Your task to perform on an android device: What's the weather? Image 0: 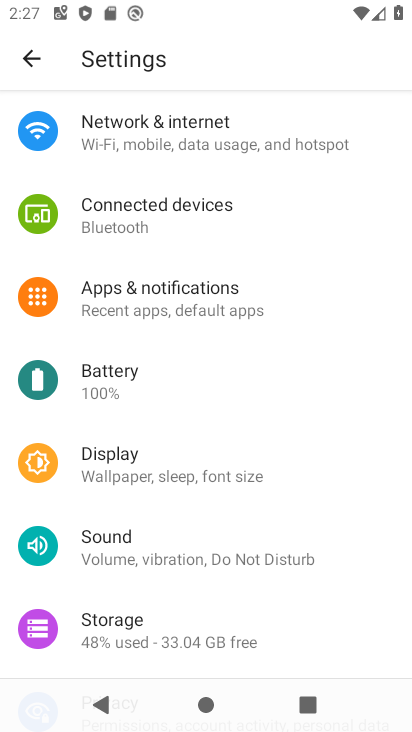
Step 0: press back button
Your task to perform on an android device: What's the weather? Image 1: 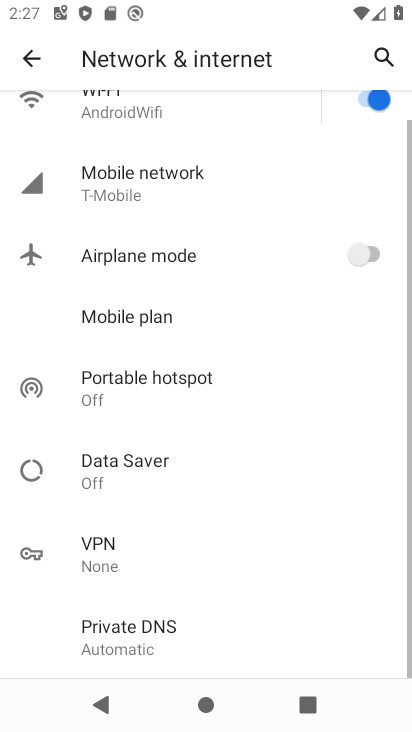
Step 1: press back button
Your task to perform on an android device: What's the weather? Image 2: 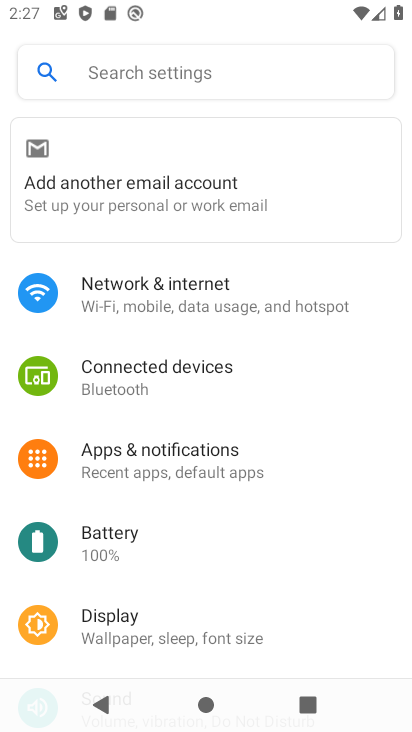
Step 2: press back button
Your task to perform on an android device: What's the weather? Image 3: 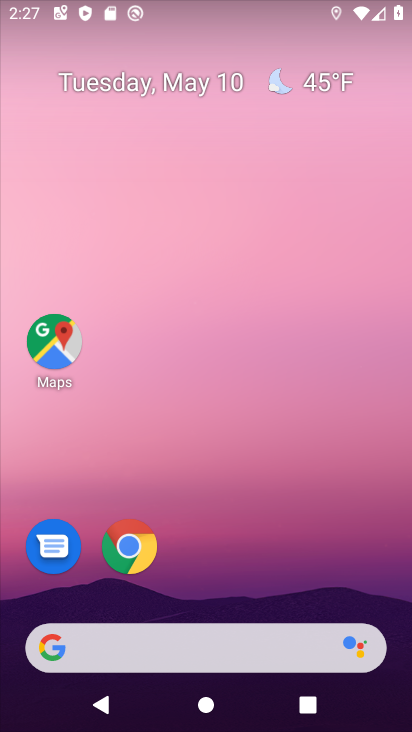
Step 3: drag from (329, 570) to (161, 13)
Your task to perform on an android device: What's the weather? Image 4: 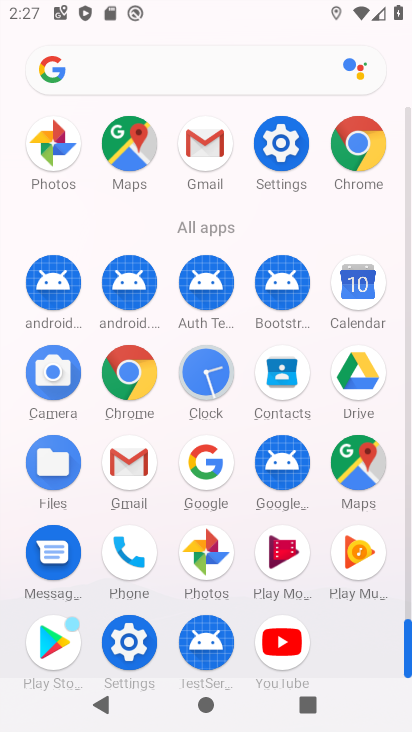
Step 4: drag from (13, 576) to (10, 225)
Your task to perform on an android device: What's the weather? Image 5: 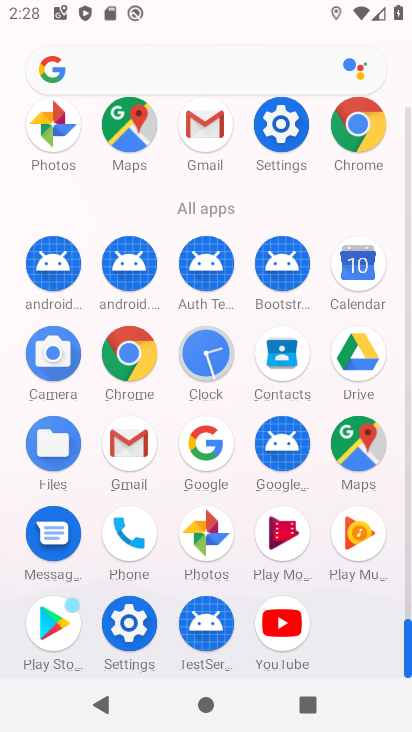
Step 5: drag from (15, 567) to (16, 214)
Your task to perform on an android device: What's the weather? Image 6: 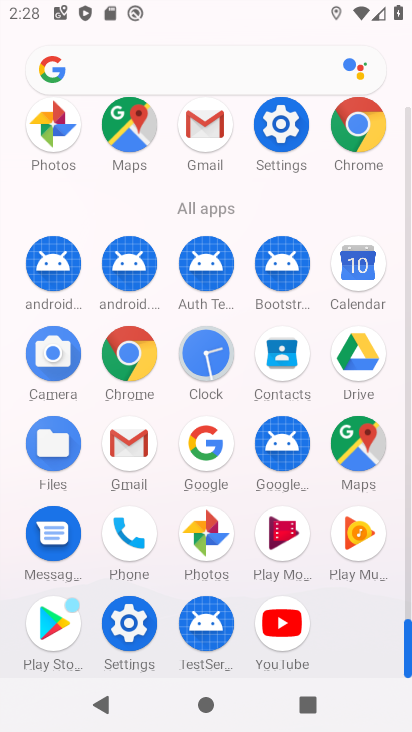
Step 6: click (120, 356)
Your task to perform on an android device: What's the weather? Image 7: 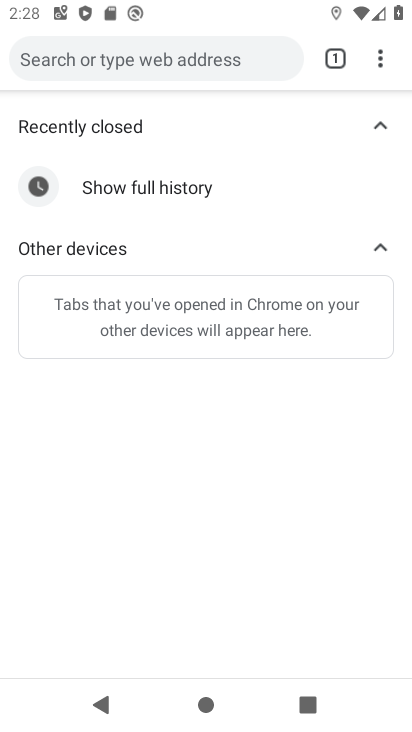
Step 7: click (147, 51)
Your task to perform on an android device: What's the weather? Image 8: 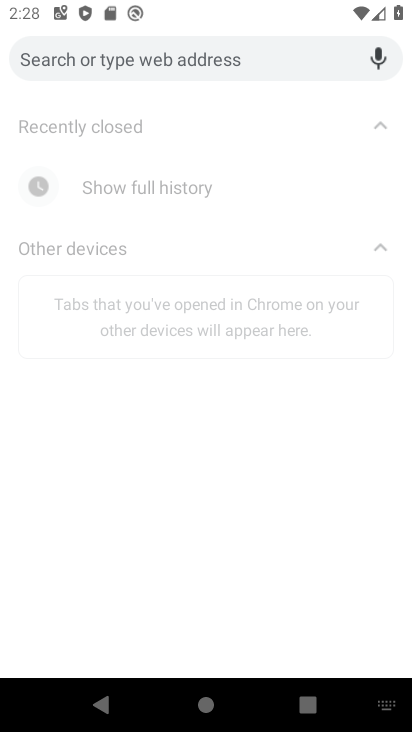
Step 8: type "What's the weather?"
Your task to perform on an android device: What's the weather? Image 9: 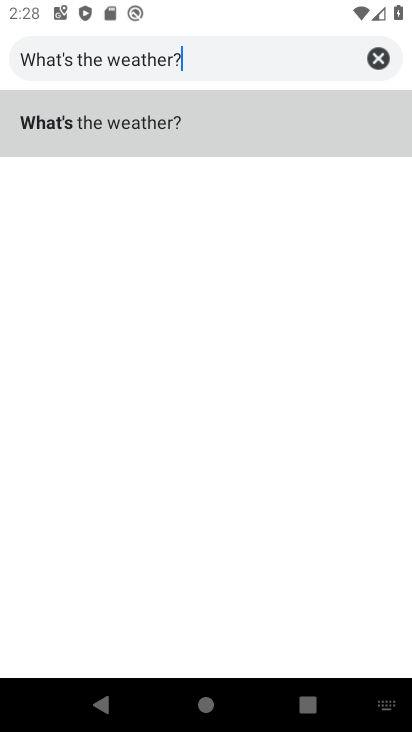
Step 9: type ""
Your task to perform on an android device: What's the weather? Image 10: 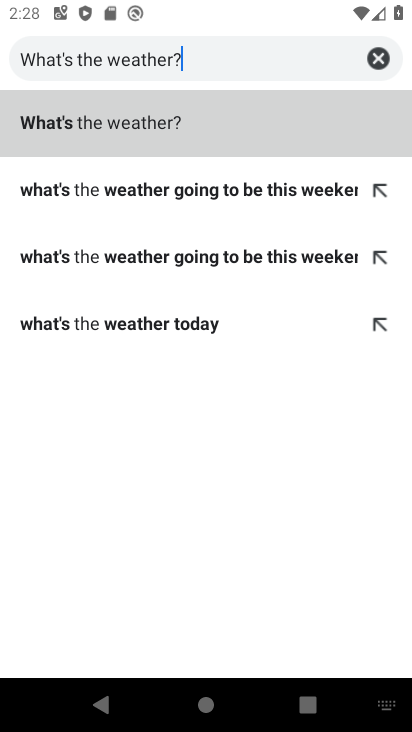
Step 10: click (231, 116)
Your task to perform on an android device: What's the weather? Image 11: 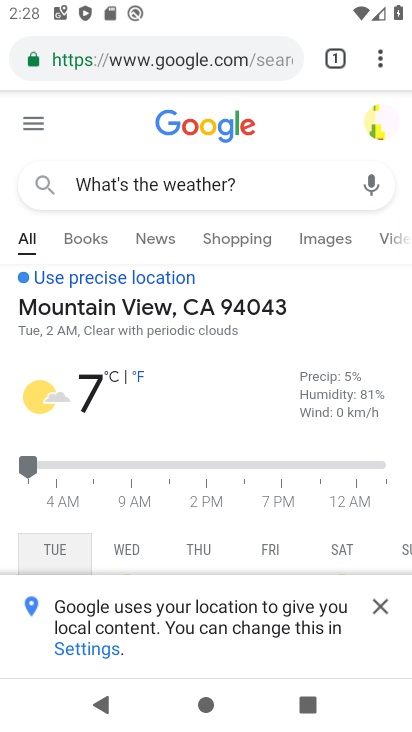
Step 11: task complete